Your task to perform on an android device: toggle wifi Image 0: 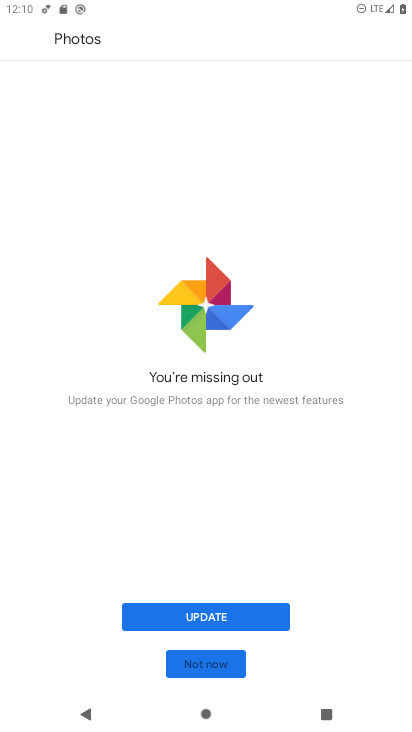
Step 0: click (157, 21)
Your task to perform on an android device: toggle wifi Image 1: 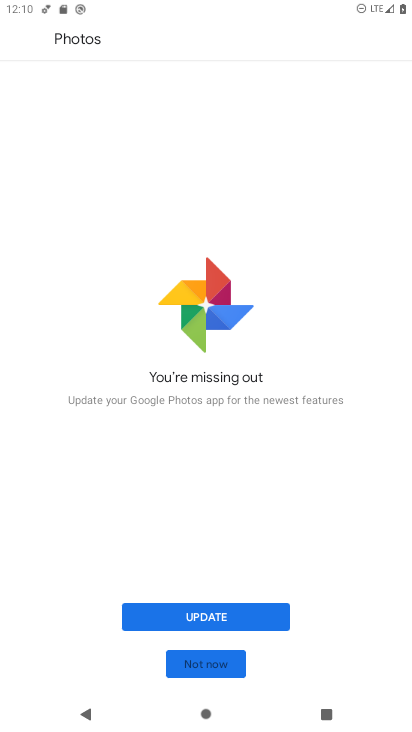
Step 1: click (154, 24)
Your task to perform on an android device: toggle wifi Image 2: 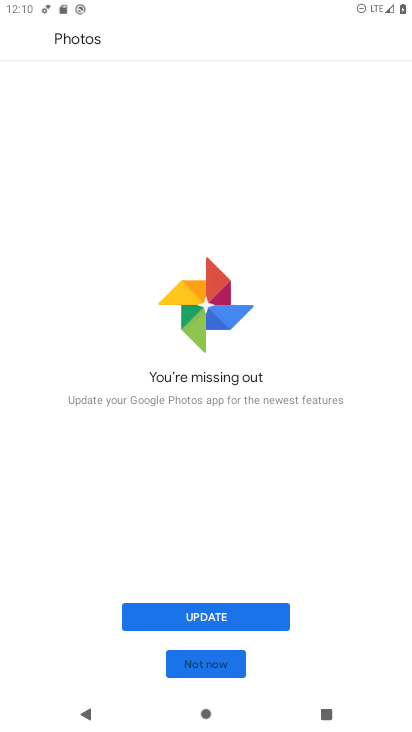
Step 2: drag from (105, 3) to (251, 562)
Your task to perform on an android device: toggle wifi Image 3: 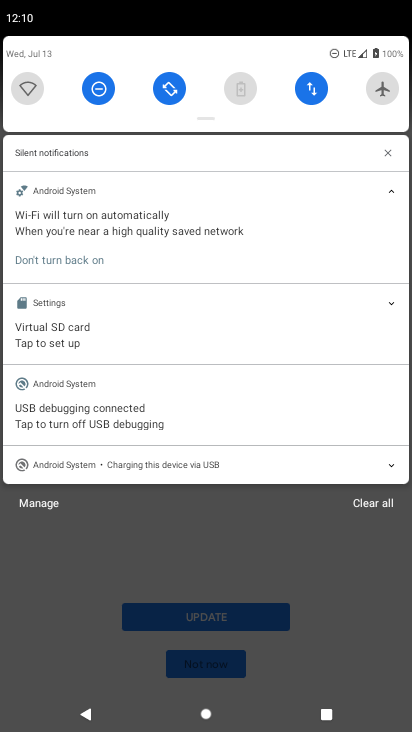
Step 3: click (23, 81)
Your task to perform on an android device: toggle wifi Image 4: 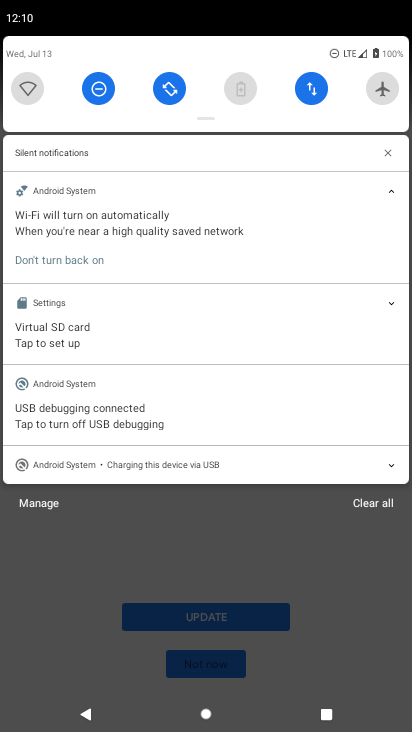
Step 4: click (23, 81)
Your task to perform on an android device: toggle wifi Image 5: 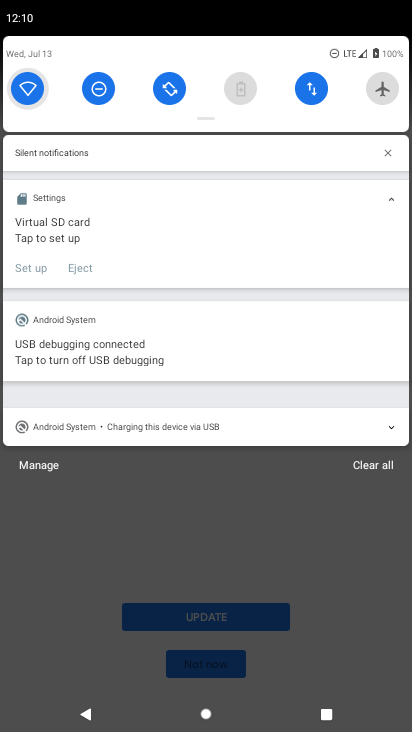
Step 5: click (23, 81)
Your task to perform on an android device: toggle wifi Image 6: 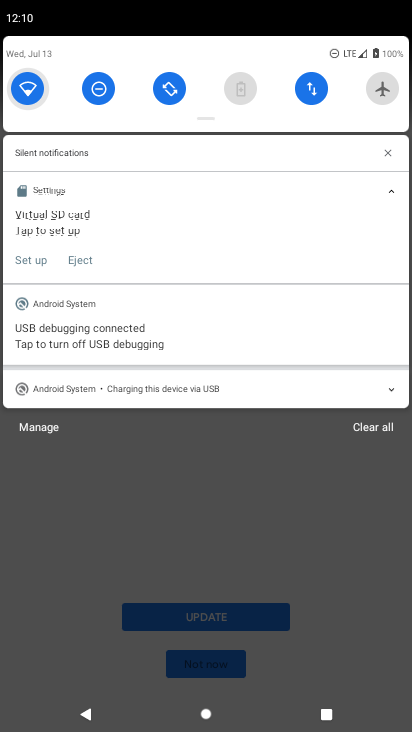
Step 6: click (23, 81)
Your task to perform on an android device: toggle wifi Image 7: 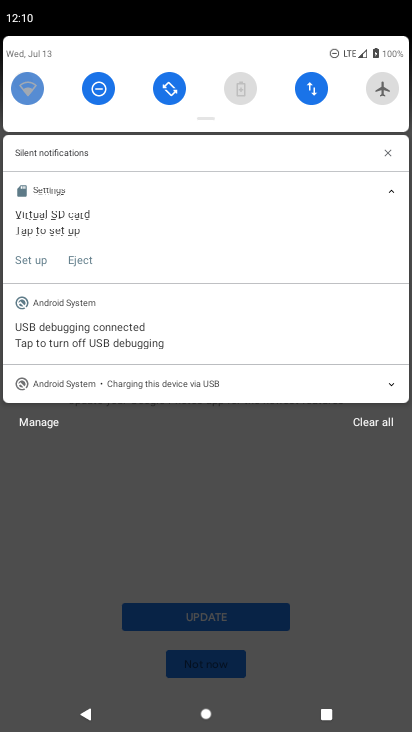
Step 7: click (23, 81)
Your task to perform on an android device: toggle wifi Image 8: 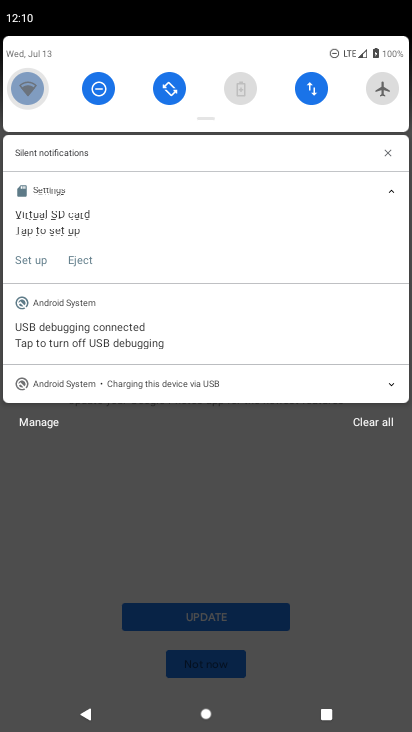
Step 8: click (23, 81)
Your task to perform on an android device: toggle wifi Image 9: 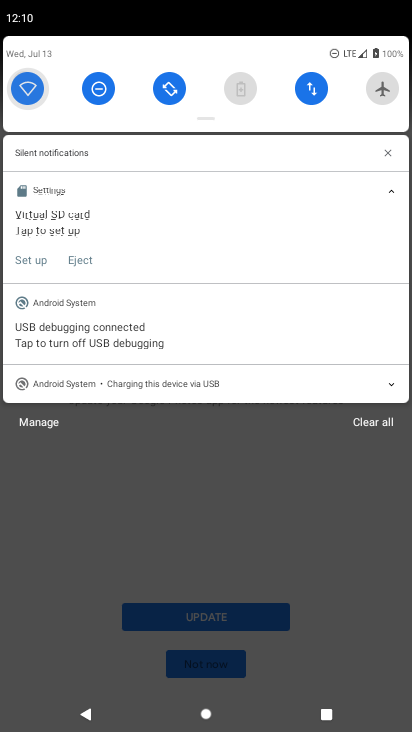
Step 9: click (23, 81)
Your task to perform on an android device: toggle wifi Image 10: 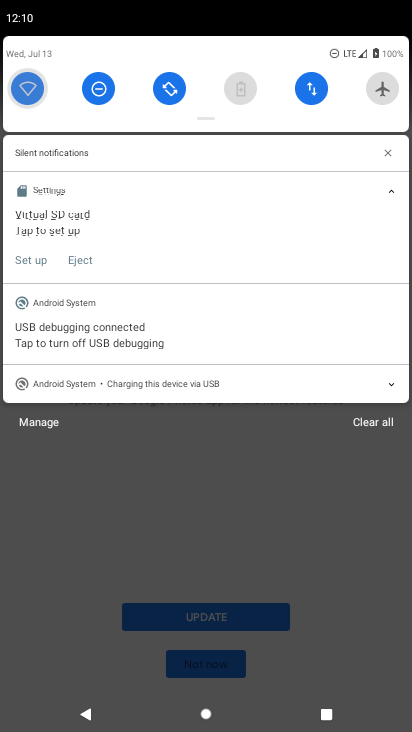
Step 10: click (23, 81)
Your task to perform on an android device: toggle wifi Image 11: 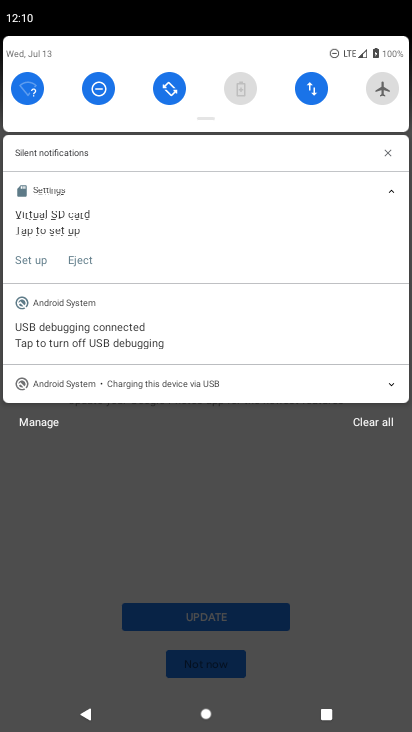
Step 11: task complete